Your task to perform on an android device: Add corsair k70 to the cart on ebay.com Image 0: 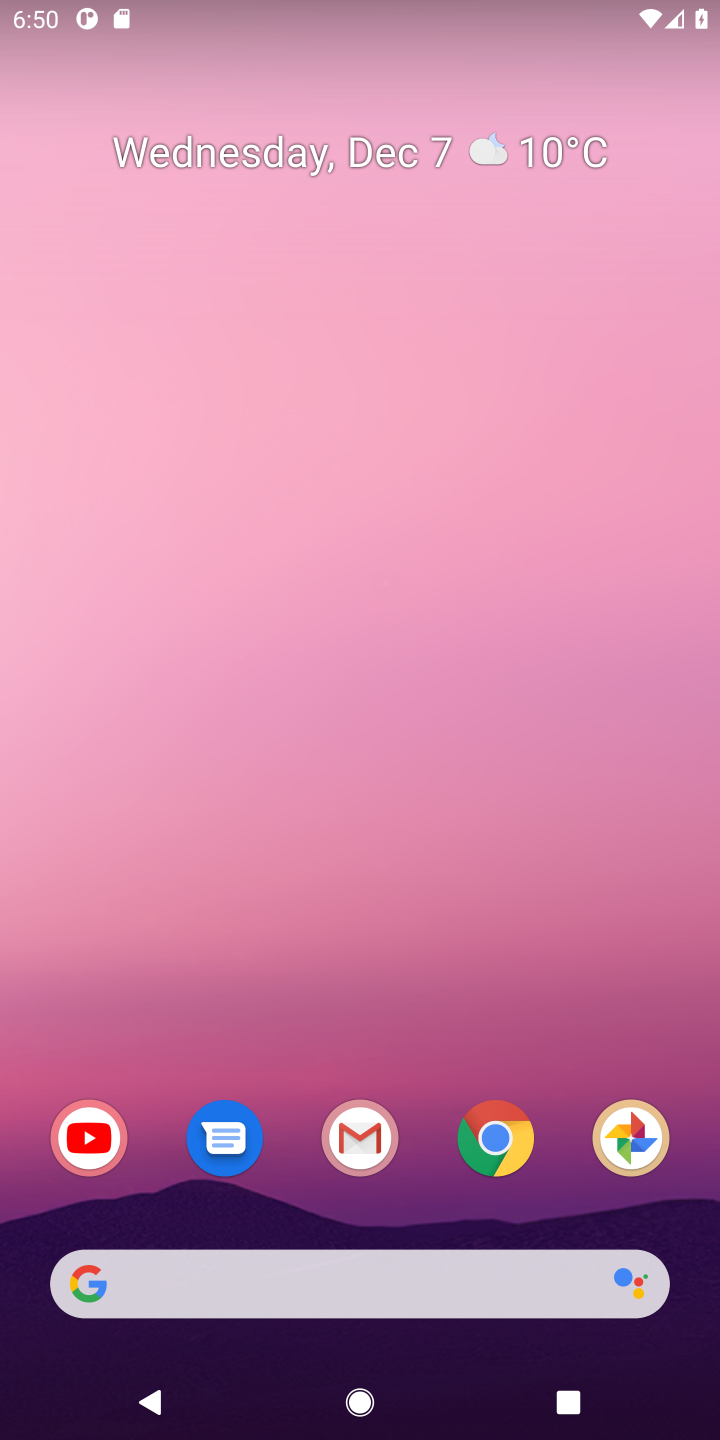
Step 0: press home button
Your task to perform on an android device: Add corsair k70 to the cart on ebay.com Image 1: 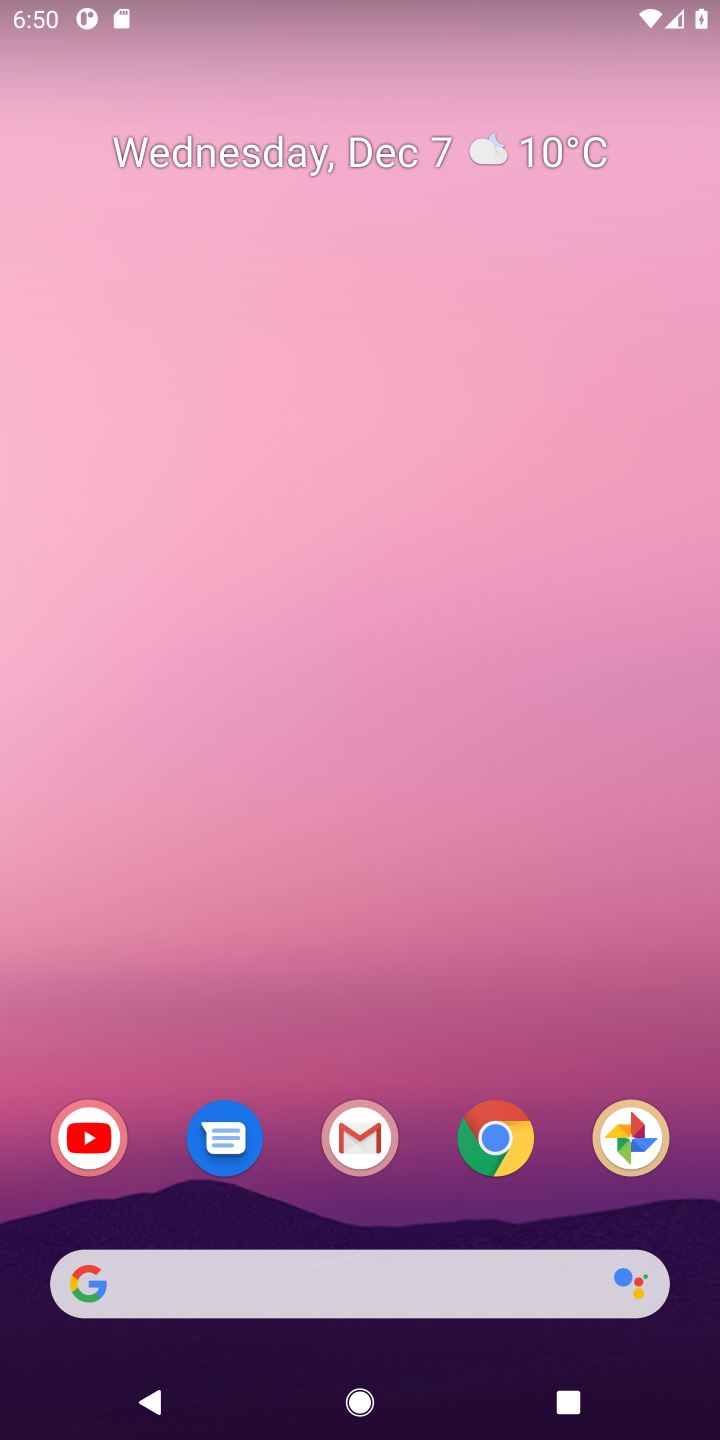
Step 1: click (246, 1282)
Your task to perform on an android device: Add corsair k70 to the cart on ebay.com Image 2: 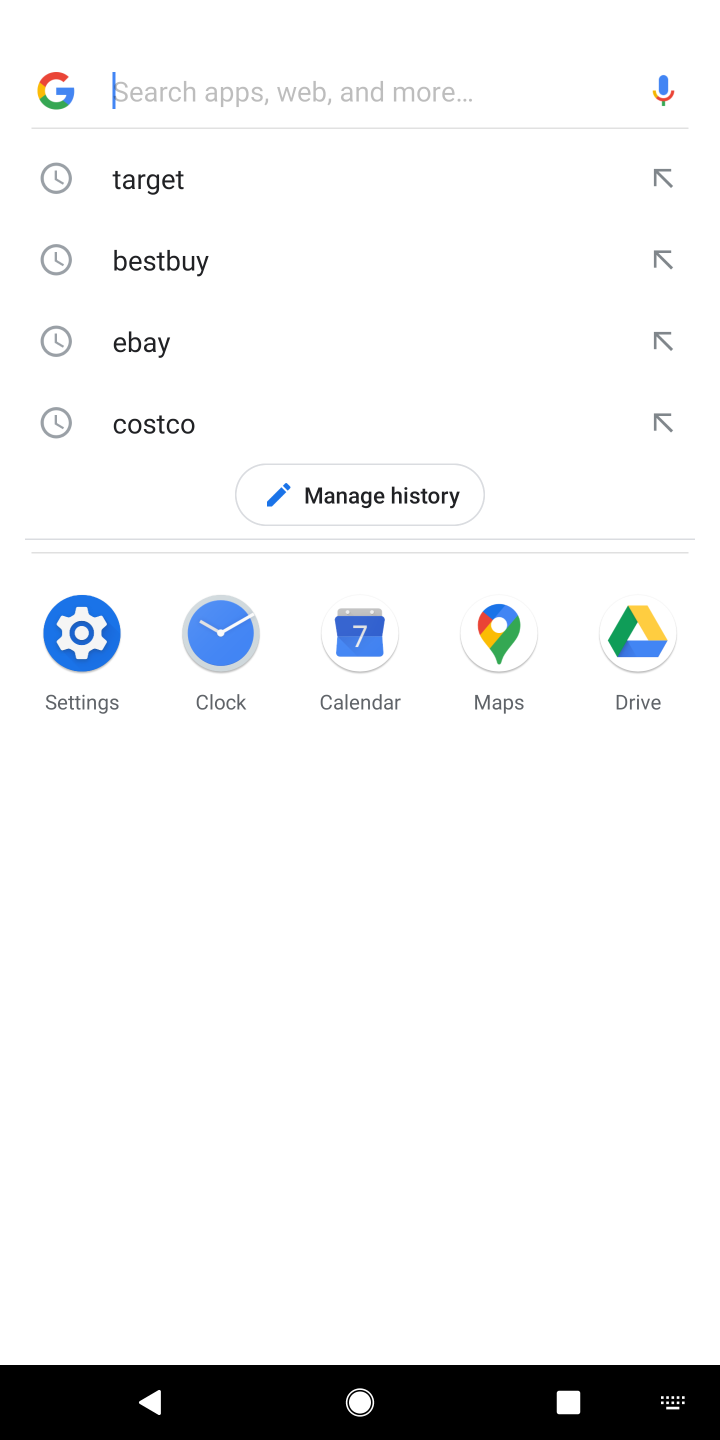
Step 2: press enter
Your task to perform on an android device: Add corsair k70 to the cart on ebay.com Image 3: 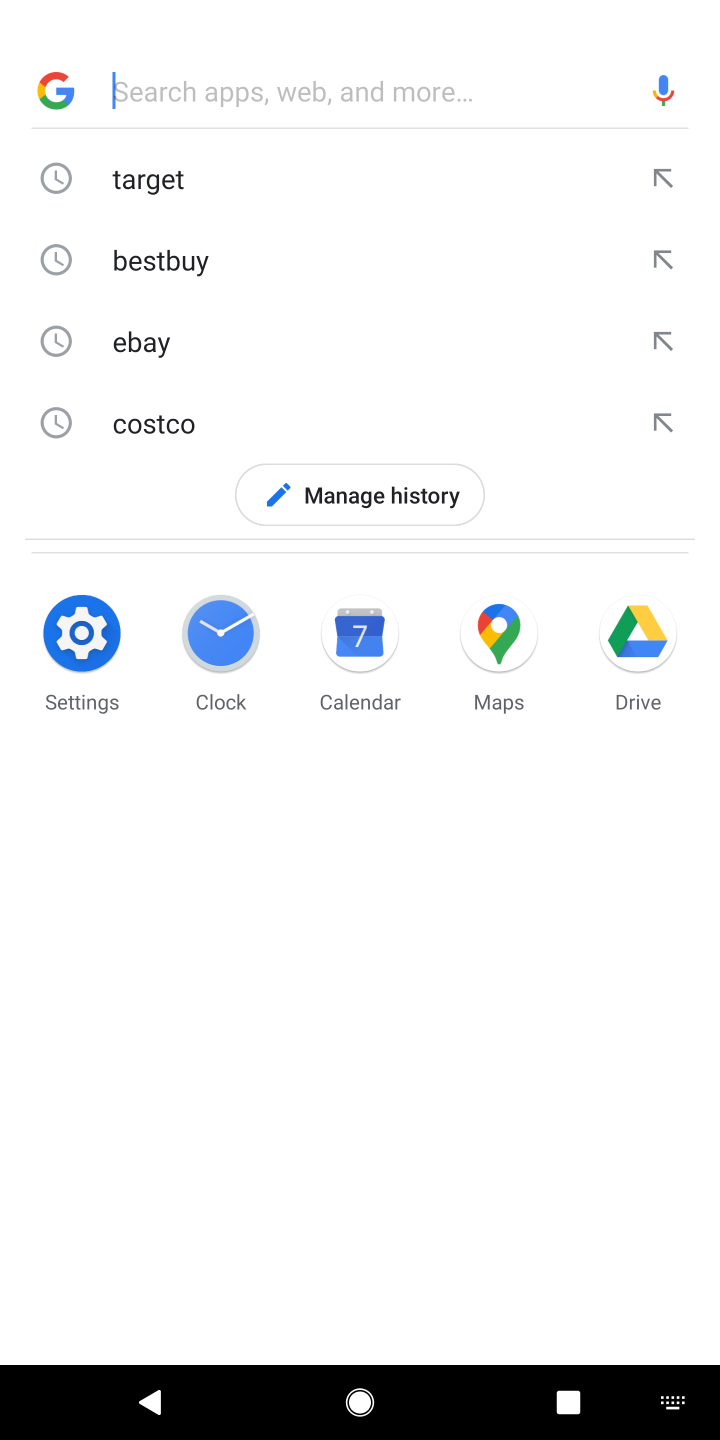
Step 3: type "ebay.com"
Your task to perform on an android device: Add corsair k70 to the cart on ebay.com Image 4: 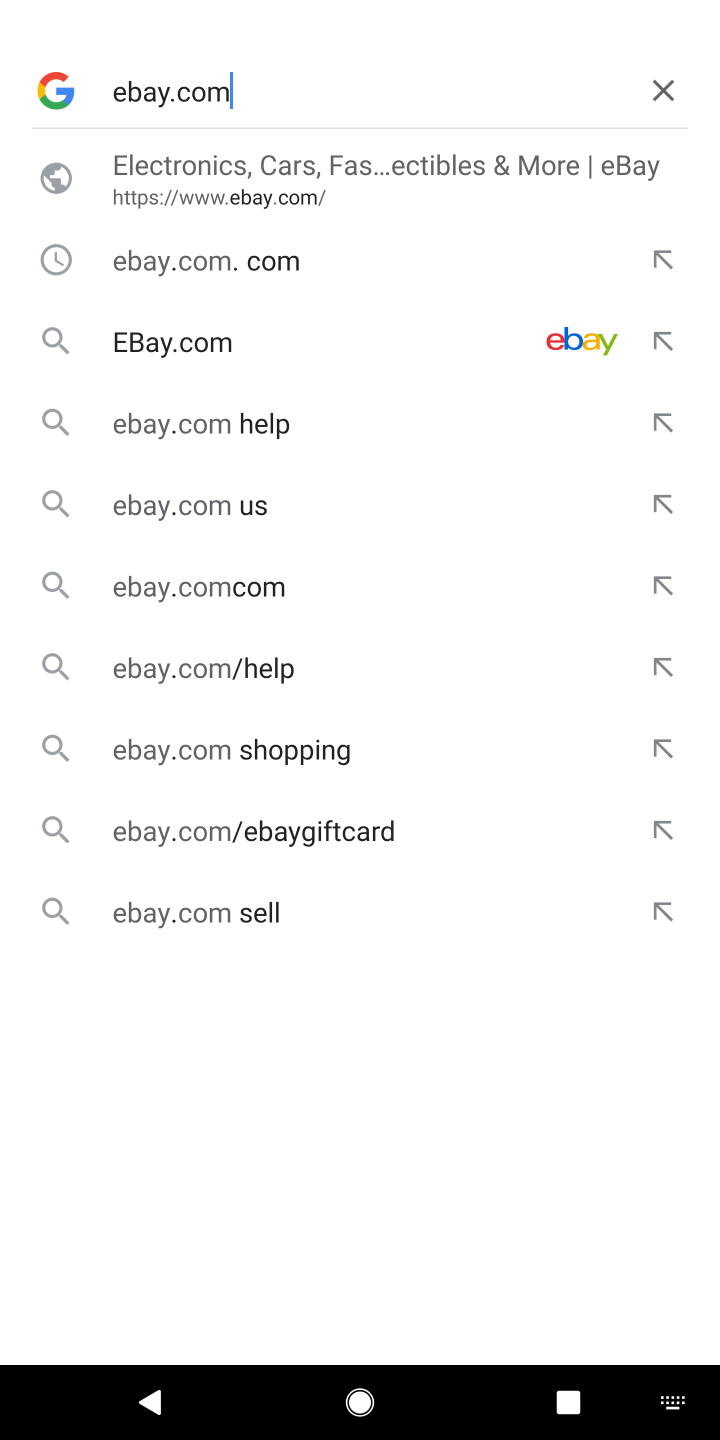
Step 4: press enter
Your task to perform on an android device: Add corsair k70 to the cart on ebay.com Image 5: 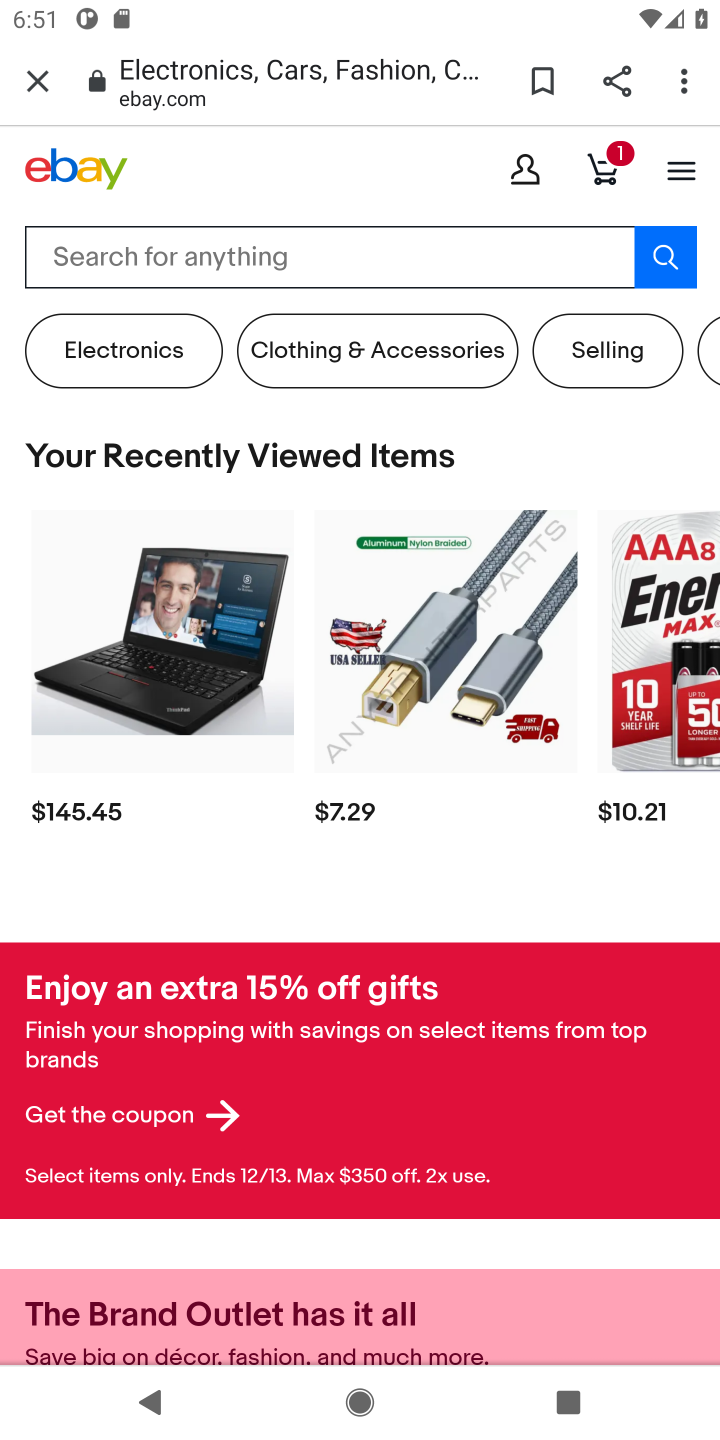
Step 5: click (206, 248)
Your task to perform on an android device: Add corsair k70 to the cart on ebay.com Image 6: 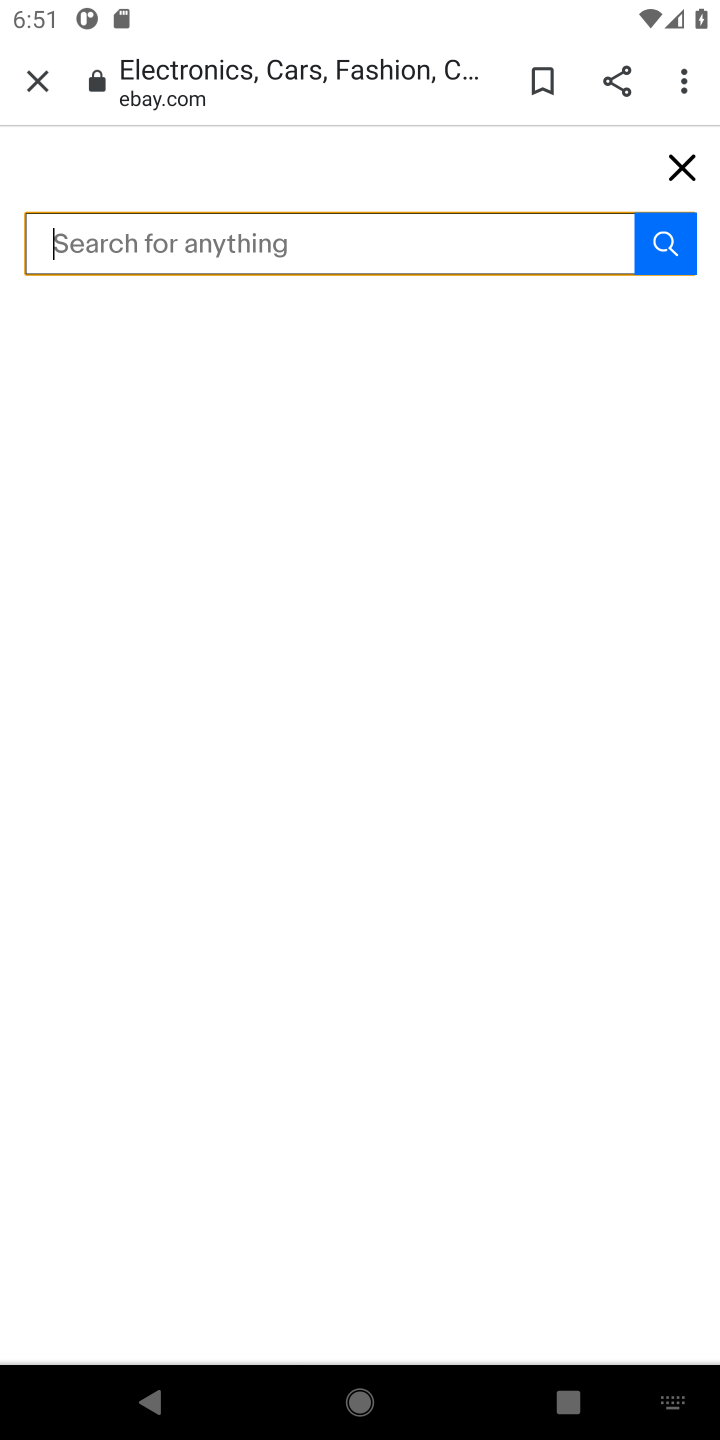
Step 6: type "corsair k70"
Your task to perform on an android device: Add corsair k70 to the cart on ebay.com Image 7: 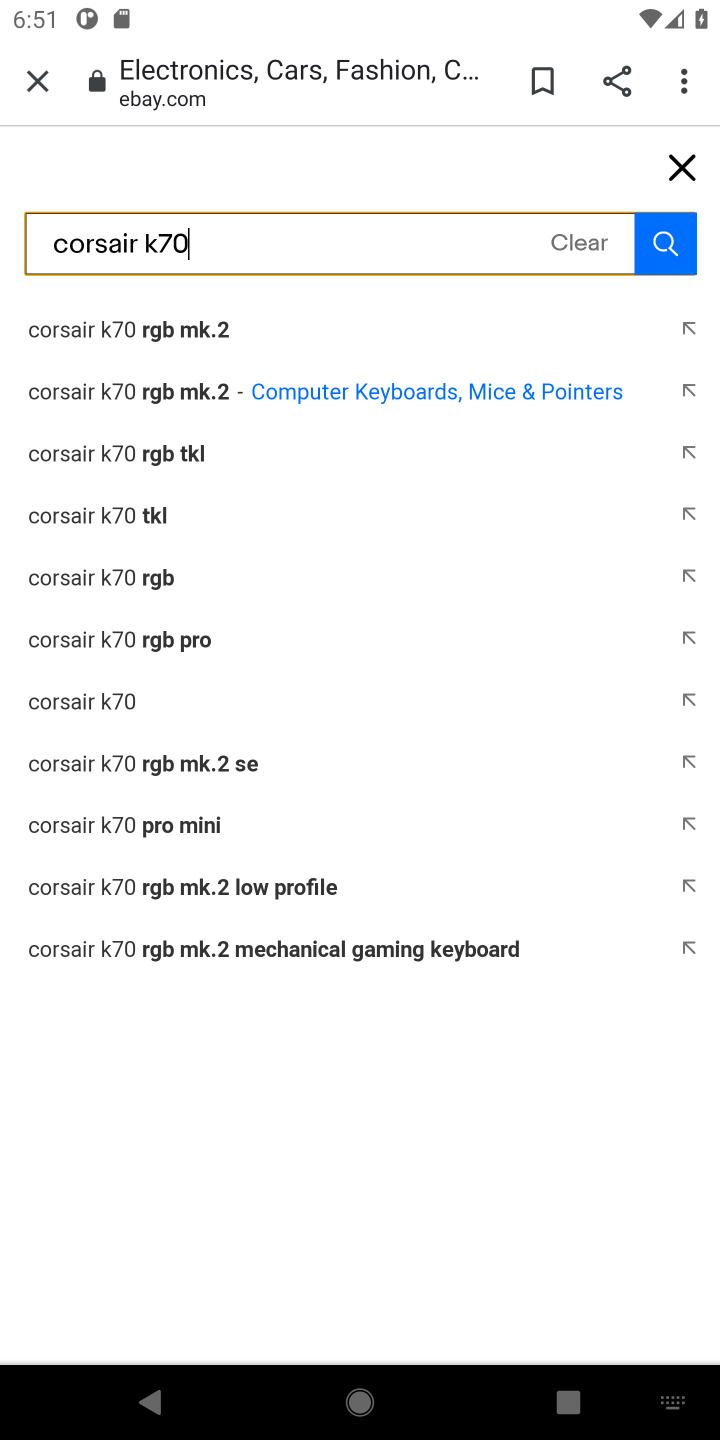
Step 7: click (666, 247)
Your task to perform on an android device: Add corsair k70 to the cart on ebay.com Image 8: 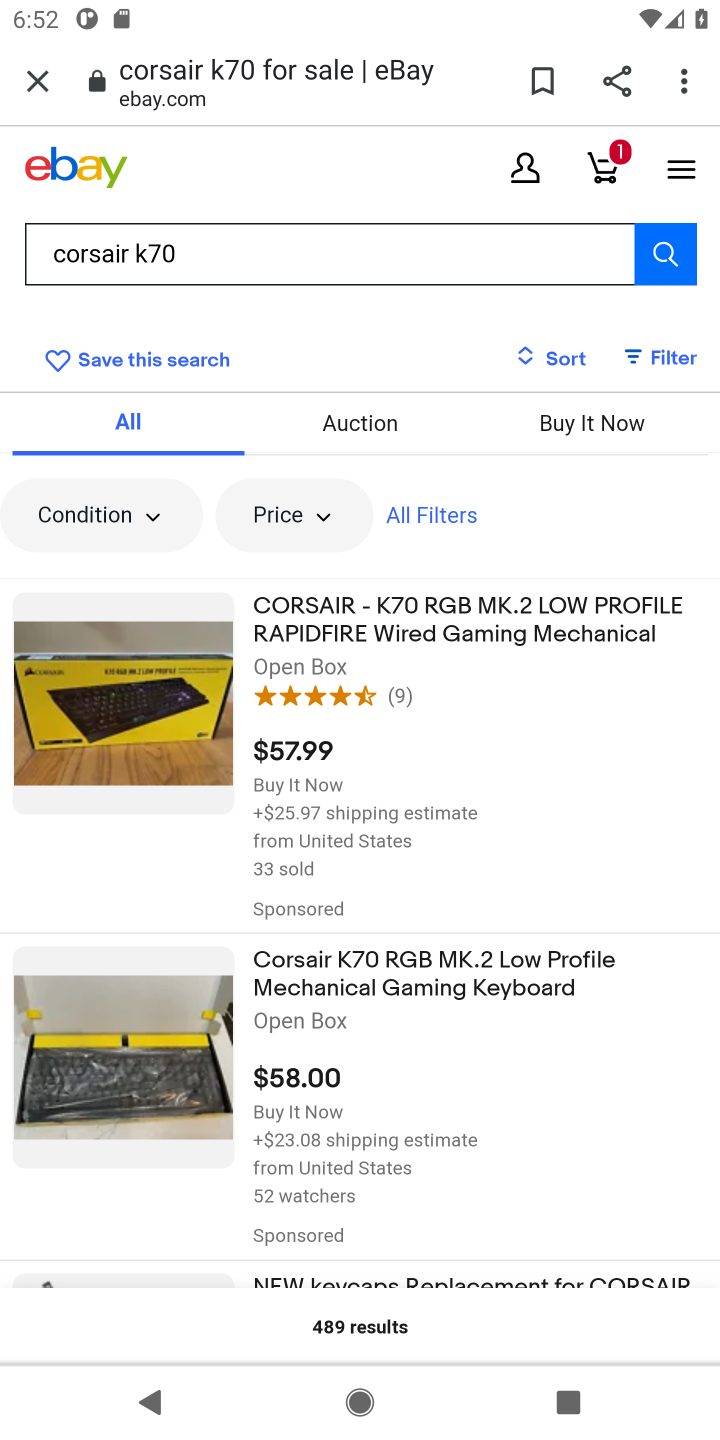
Step 8: click (484, 634)
Your task to perform on an android device: Add corsair k70 to the cart on ebay.com Image 9: 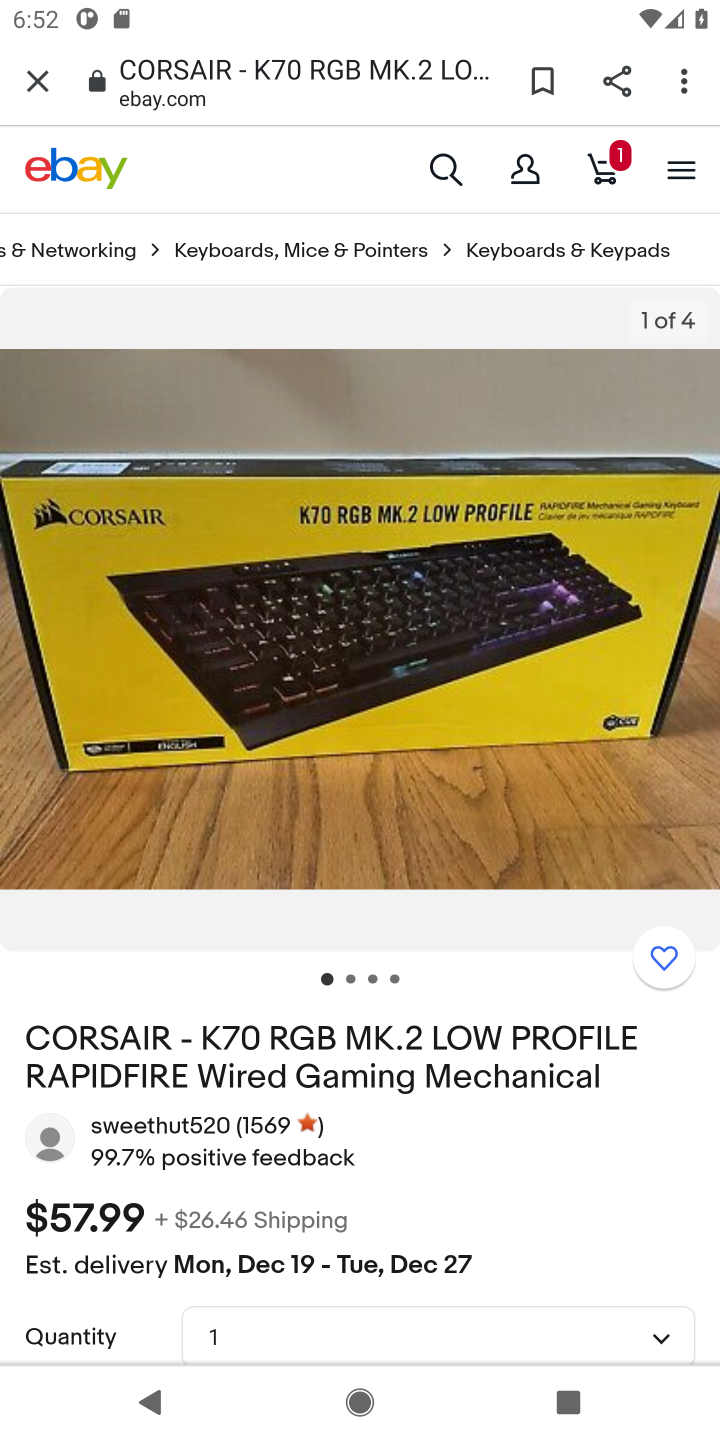
Step 9: drag from (348, 1228) to (420, 675)
Your task to perform on an android device: Add corsair k70 to the cart on ebay.com Image 10: 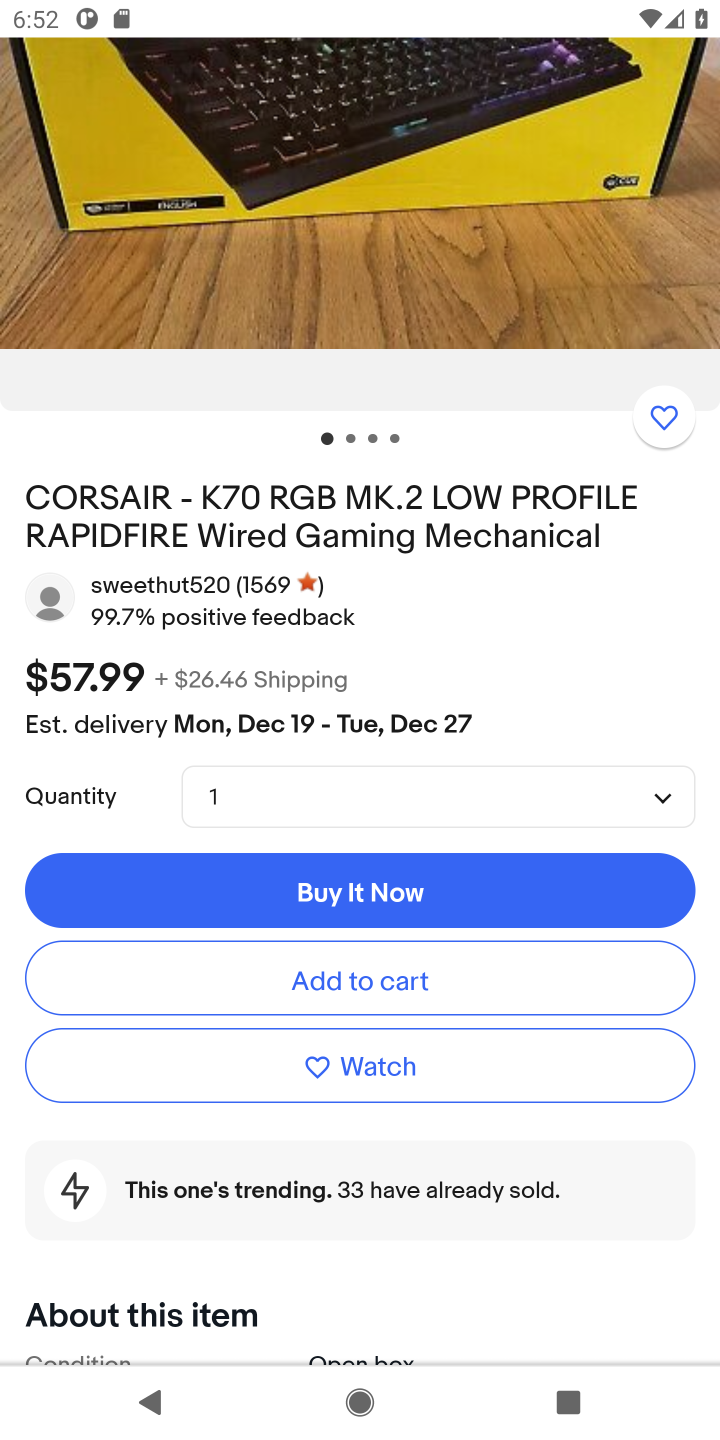
Step 10: click (317, 976)
Your task to perform on an android device: Add corsair k70 to the cart on ebay.com Image 11: 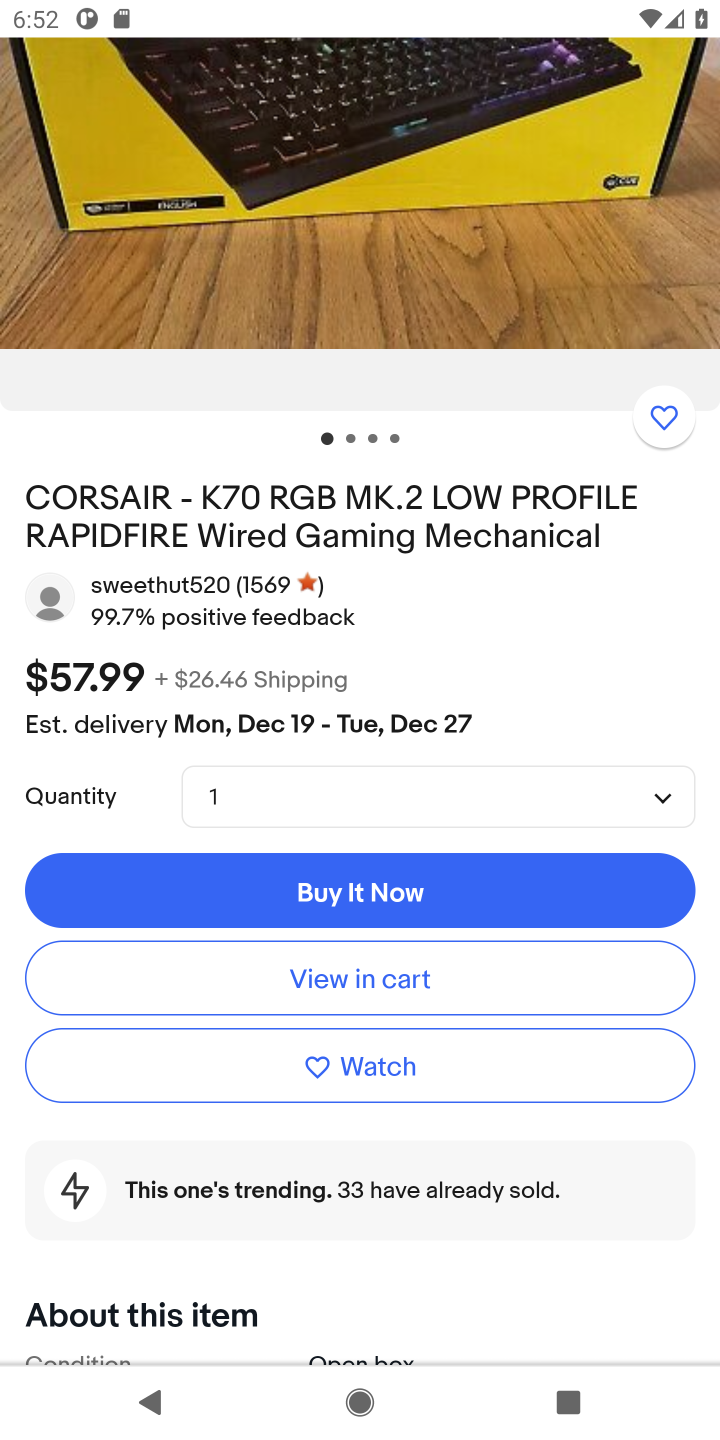
Step 11: task complete